Your task to perform on an android device: Go to wifi settings Image 0: 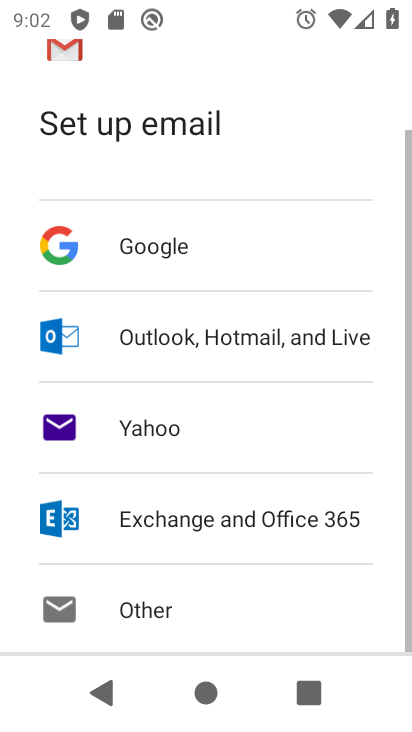
Step 0: drag from (198, 565) to (305, 9)
Your task to perform on an android device: Go to wifi settings Image 1: 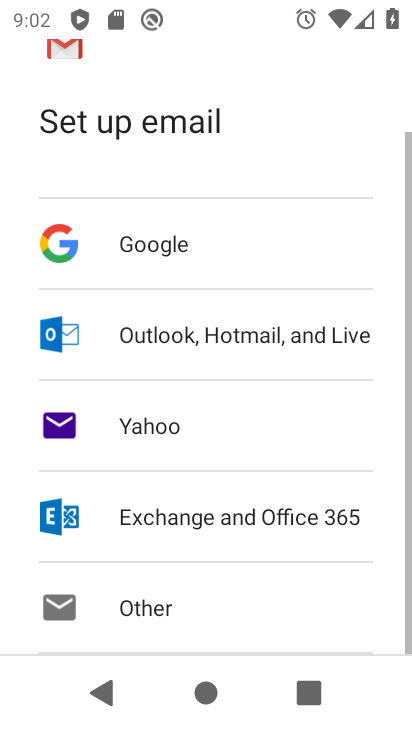
Step 1: drag from (182, 289) to (240, 697)
Your task to perform on an android device: Go to wifi settings Image 2: 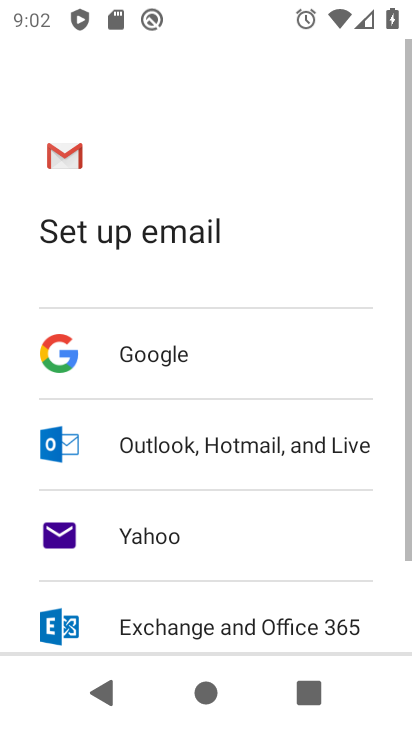
Step 2: press home button
Your task to perform on an android device: Go to wifi settings Image 3: 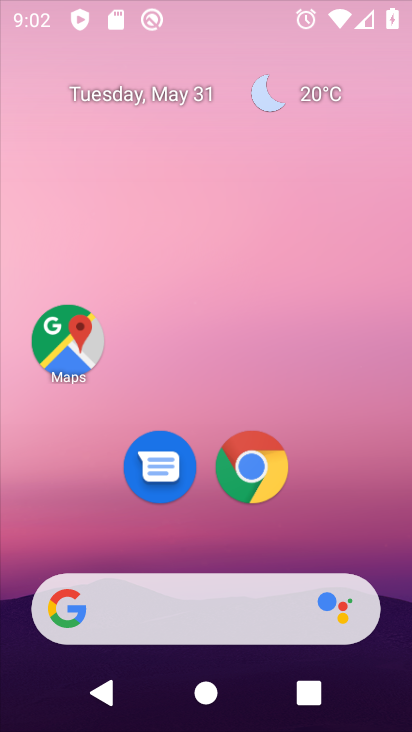
Step 3: drag from (235, 562) to (332, 138)
Your task to perform on an android device: Go to wifi settings Image 4: 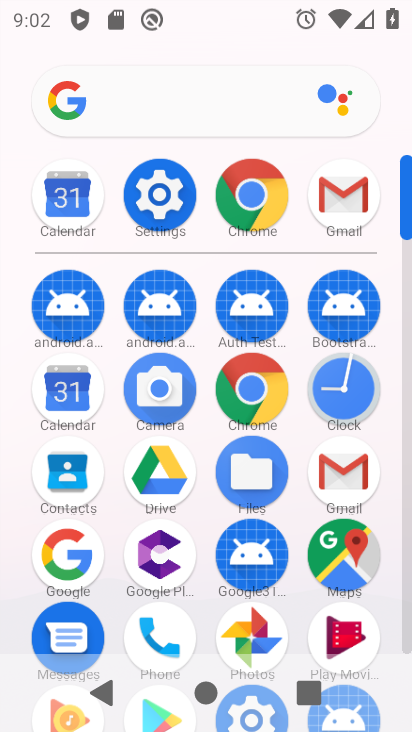
Step 4: click (164, 178)
Your task to perform on an android device: Go to wifi settings Image 5: 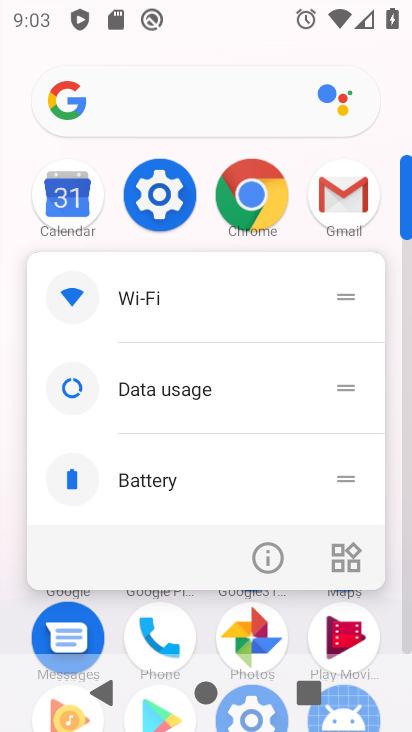
Step 5: click (150, 305)
Your task to perform on an android device: Go to wifi settings Image 6: 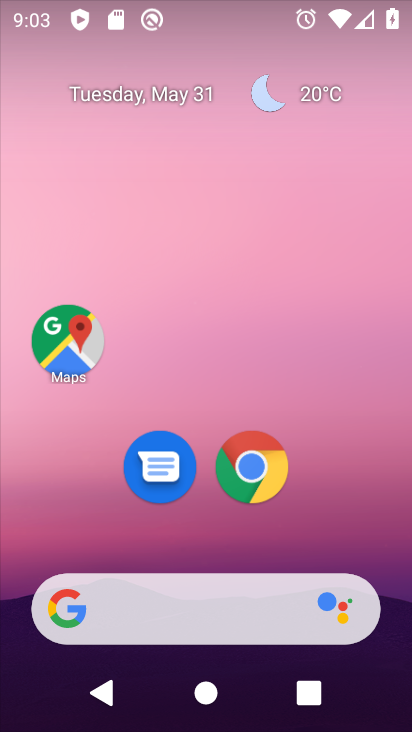
Step 6: drag from (205, 529) to (338, 75)
Your task to perform on an android device: Go to wifi settings Image 7: 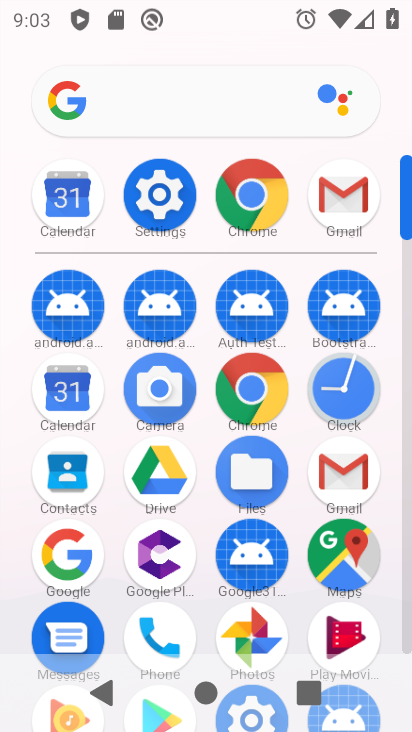
Step 7: click (155, 188)
Your task to perform on an android device: Go to wifi settings Image 8: 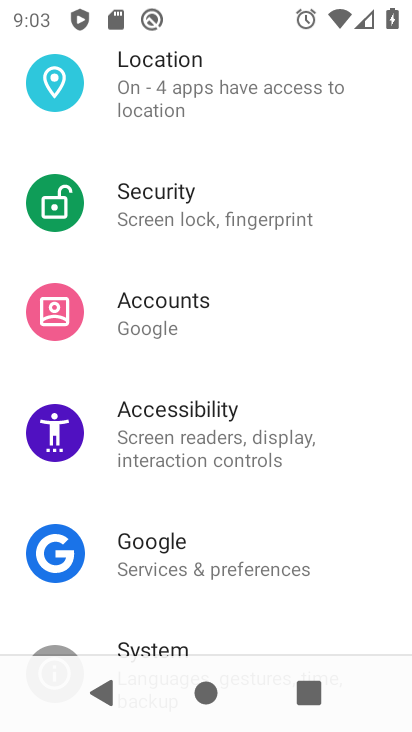
Step 8: drag from (235, 161) to (276, 728)
Your task to perform on an android device: Go to wifi settings Image 9: 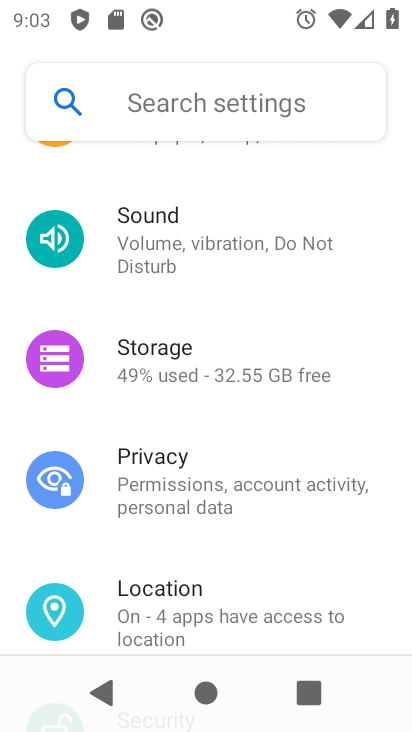
Step 9: drag from (264, 285) to (284, 728)
Your task to perform on an android device: Go to wifi settings Image 10: 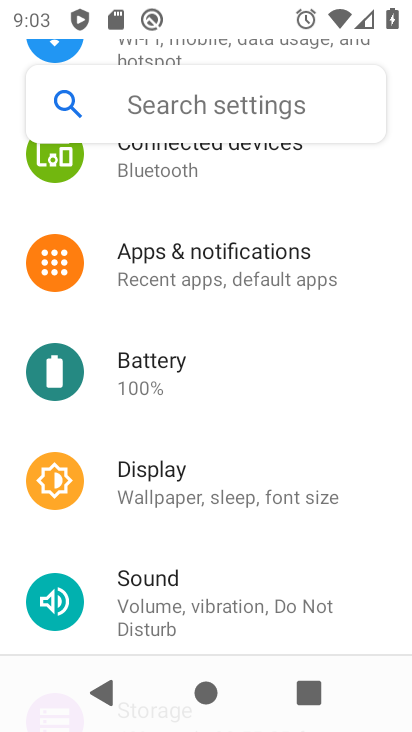
Step 10: drag from (214, 275) to (301, 722)
Your task to perform on an android device: Go to wifi settings Image 11: 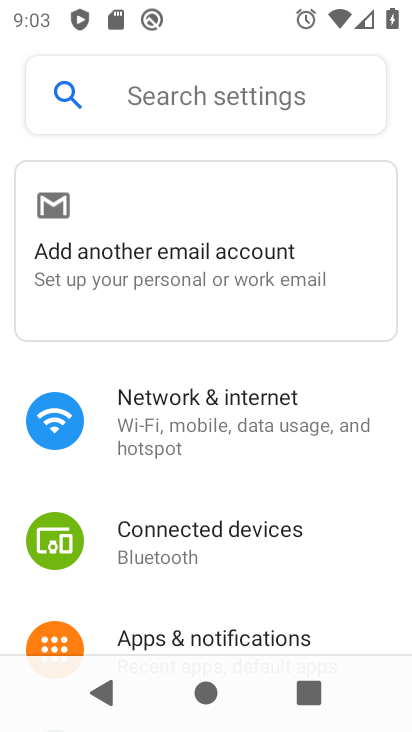
Step 11: click (158, 418)
Your task to perform on an android device: Go to wifi settings Image 12: 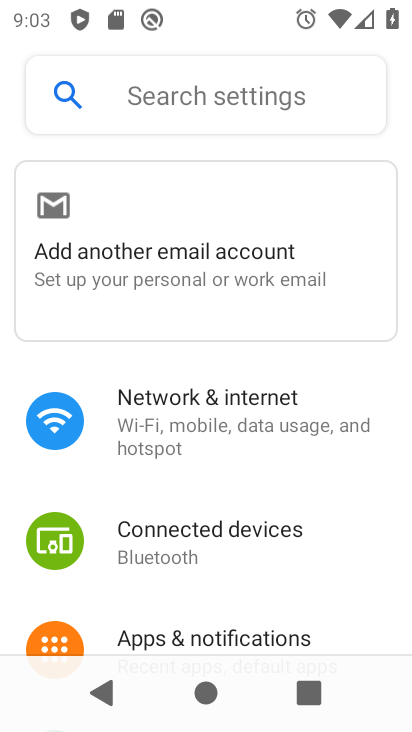
Step 12: click (158, 418)
Your task to perform on an android device: Go to wifi settings Image 13: 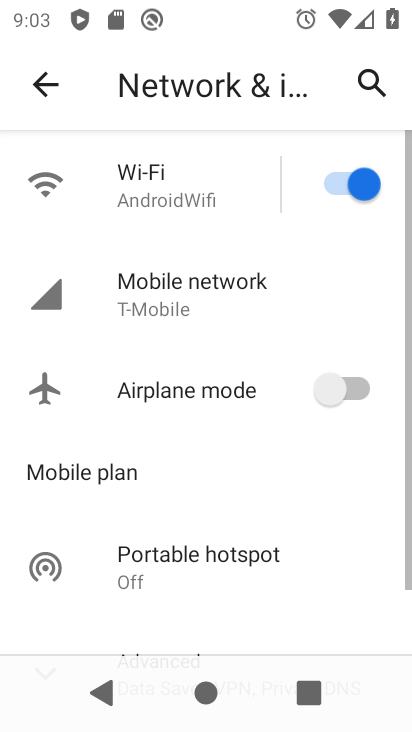
Step 13: click (223, 208)
Your task to perform on an android device: Go to wifi settings Image 14: 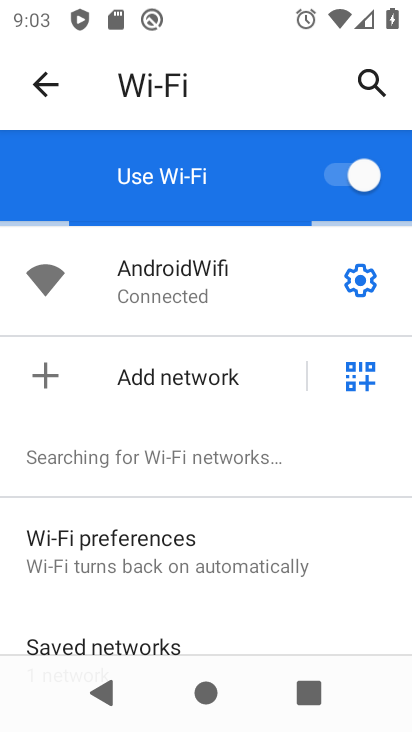
Step 14: drag from (234, 511) to (335, 79)
Your task to perform on an android device: Go to wifi settings Image 15: 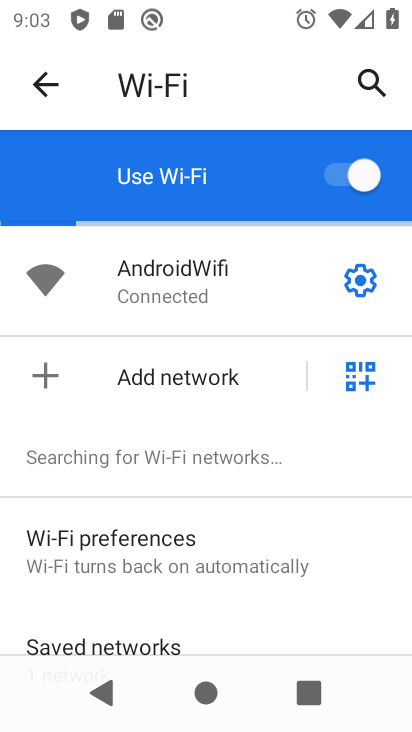
Step 15: click (362, 288)
Your task to perform on an android device: Go to wifi settings Image 16: 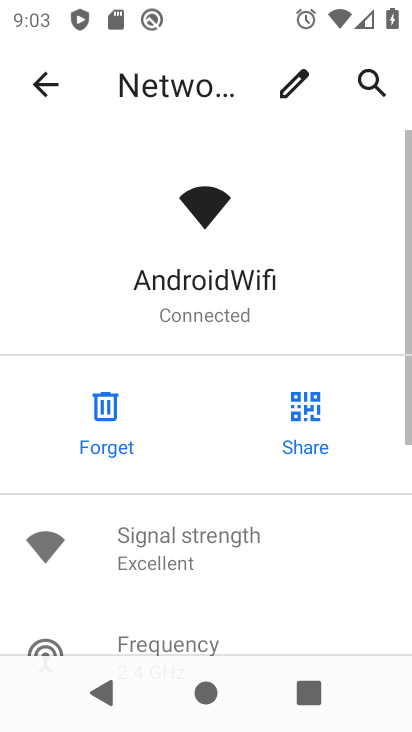
Step 16: task complete